Your task to perform on an android device: check battery use Image 0: 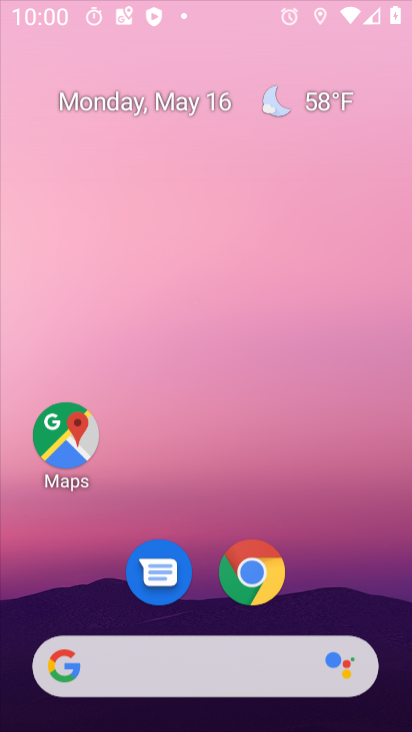
Step 0: drag from (344, 631) to (110, 44)
Your task to perform on an android device: check battery use Image 1: 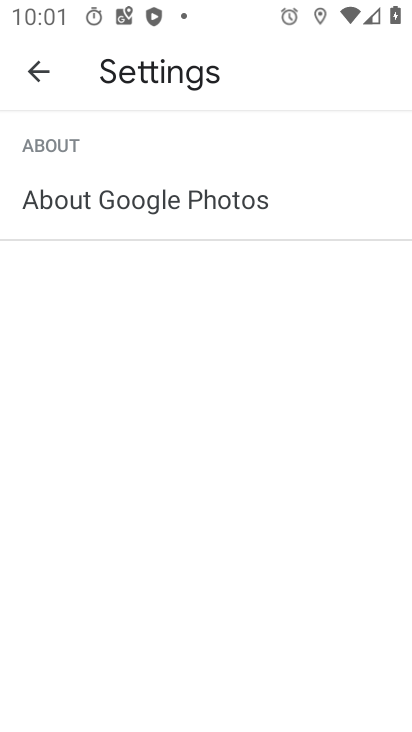
Step 1: click (27, 65)
Your task to perform on an android device: check battery use Image 2: 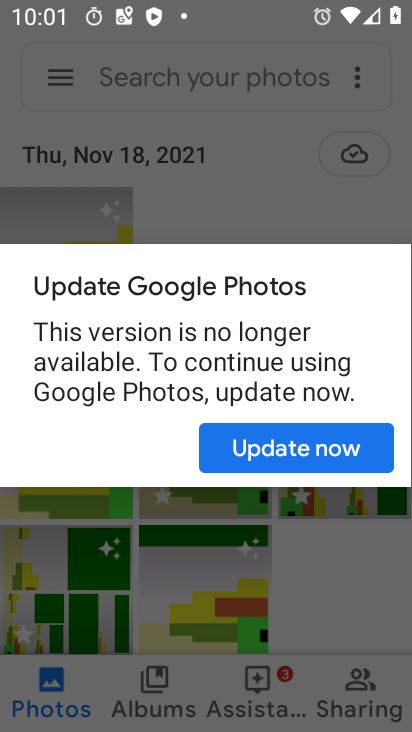
Step 2: press back button
Your task to perform on an android device: check battery use Image 3: 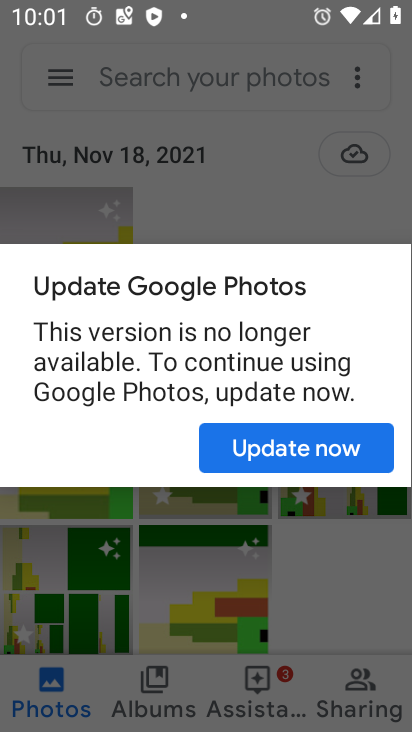
Step 3: press home button
Your task to perform on an android device: check battery use Image 4: 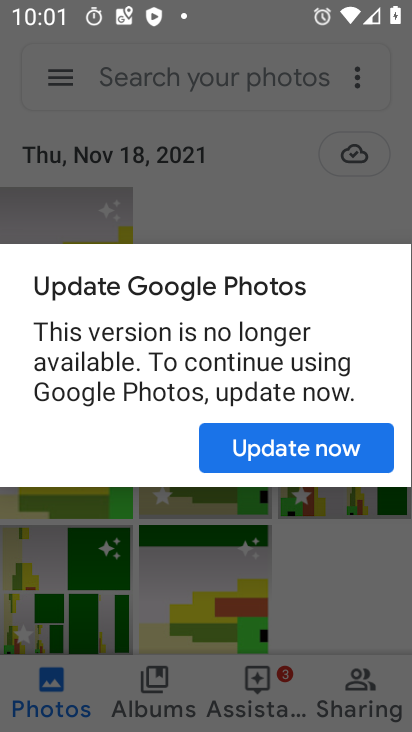
Step 4: press home button
Your task to perform on an android device: check battery use Image 5: 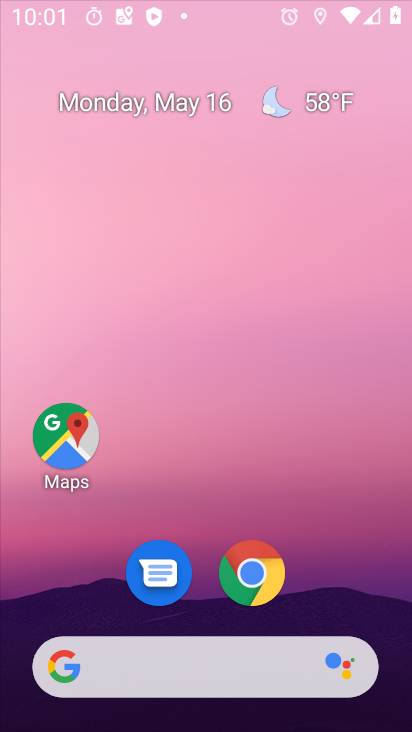
Step 5: press home button
Your task to perform on an android device: check battery use Image 6: 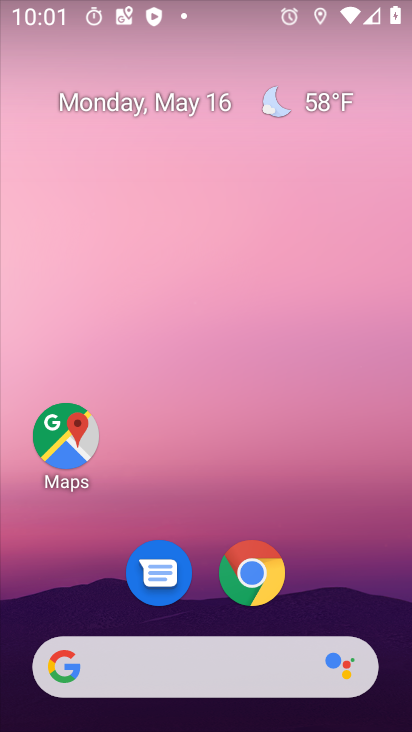
Step 6: press home button
Your task to perform on an android device: check battery use Image 7: 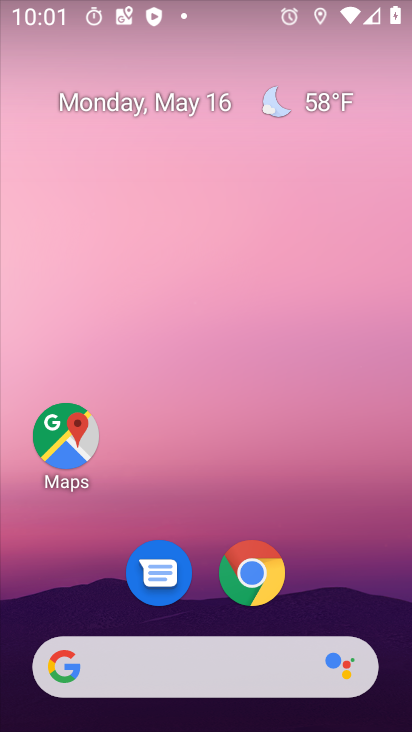
Step 7: drag from (395, 651) to (196, 125)
Your task to perform on an android device: check battery use Image 8: 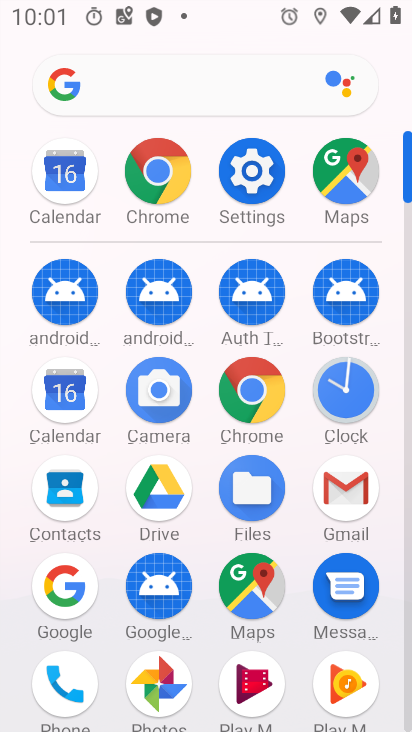
Step 8: click (256, 183)
Your task to perform on an android device: check battery use Image 9: 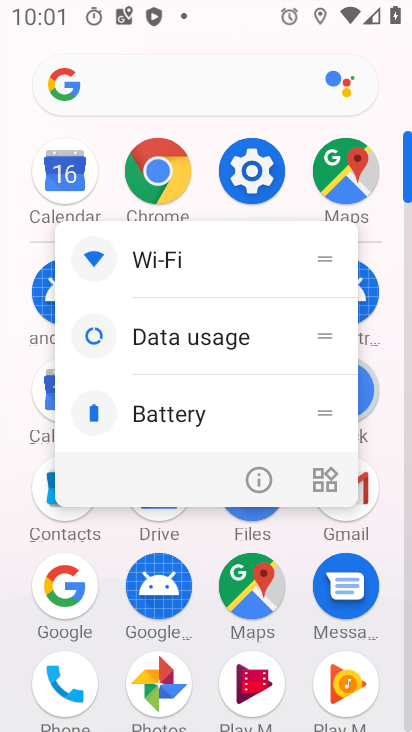
Step 9: click (256, 182)
Your task to perform on an android device: check battery use Image 10: 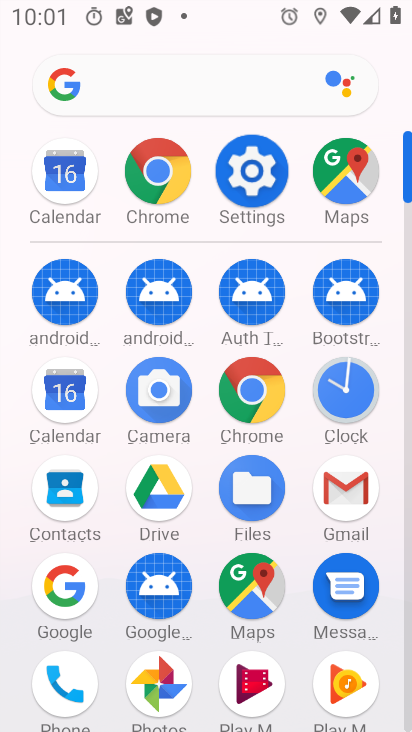
Step 10: click (256, 182)
Your task to perform on an android device: check battery use Image 11: 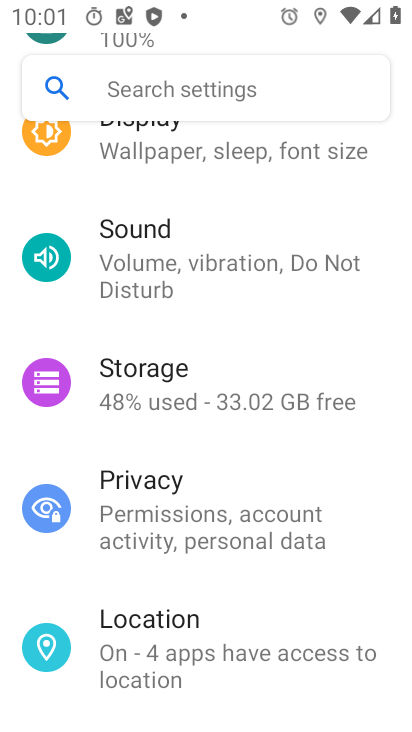
Step 11: drag from (220, 217) to (234, 436)
Your task to perform on an android device: check battery use Image 12: 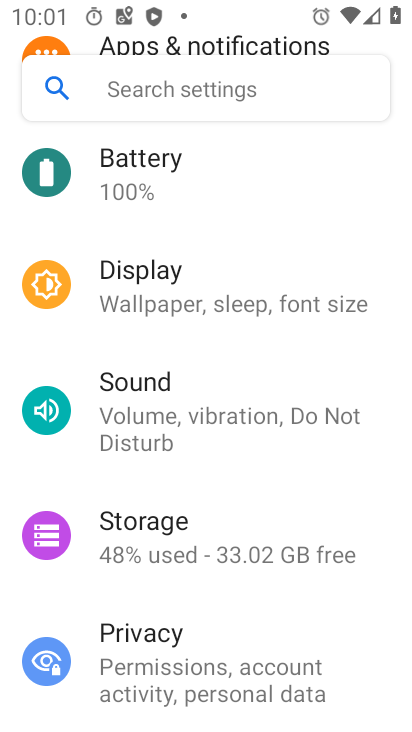
Step 12: click (142, 173)
Your task to perform on an android device: check battery use Image 13: 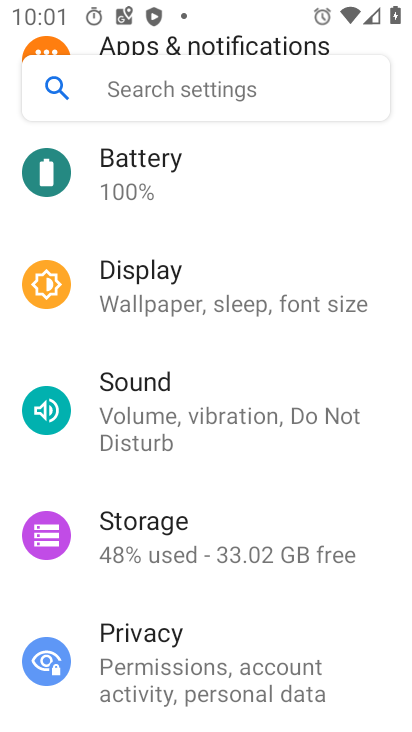
Step 13: click (140, 170)
Your task to perform on an android device: check battery use Image 14: 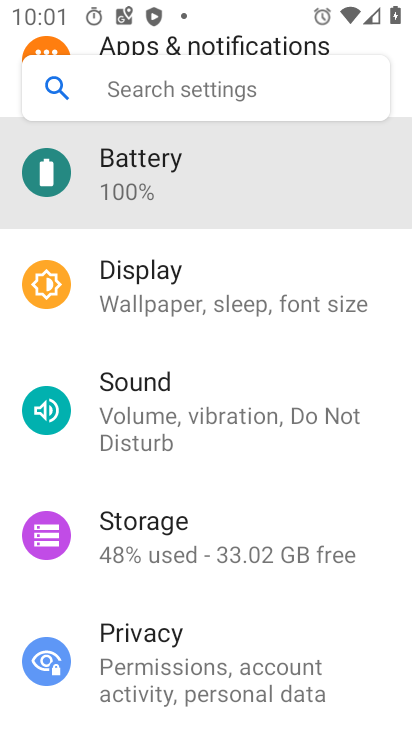
Step 14: click (140, 170)
Your task to perform on an android device: check battery use Image 15: 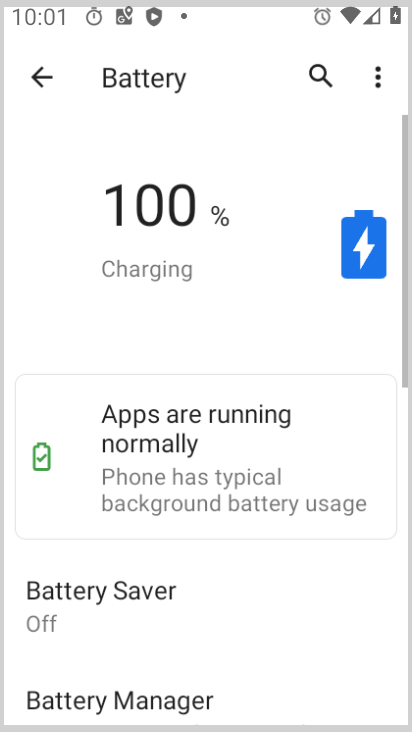
Step 15: click (140, 170)
Your task to perform on an android device: check battery use Image 16: 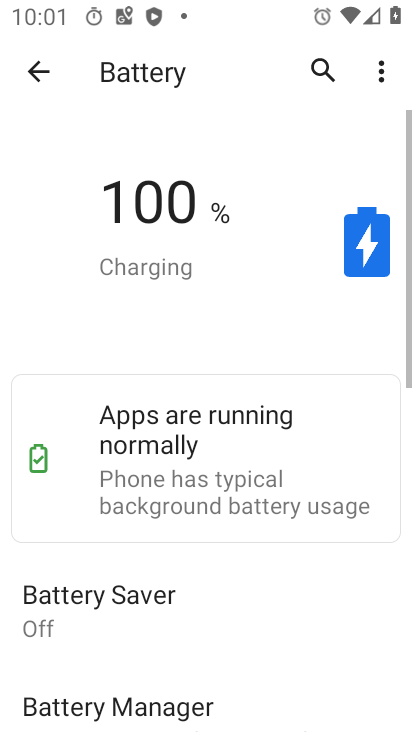
Step 16: click (140, 170)
Your task to perform on an android device: check battery use Image 17: 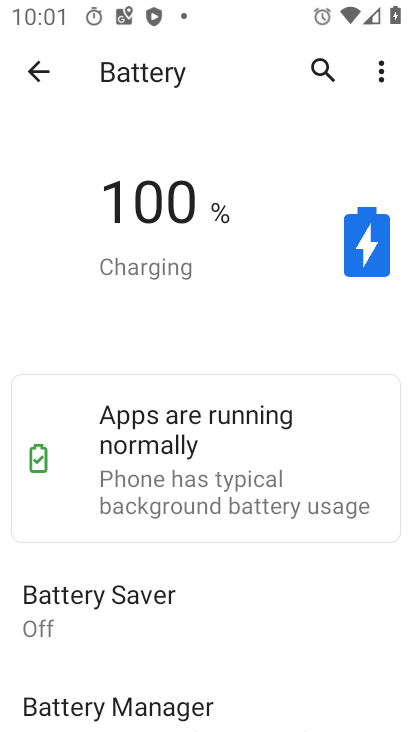
Step 17: task complete